Your task to perform on an android device: delete location history Image 0: 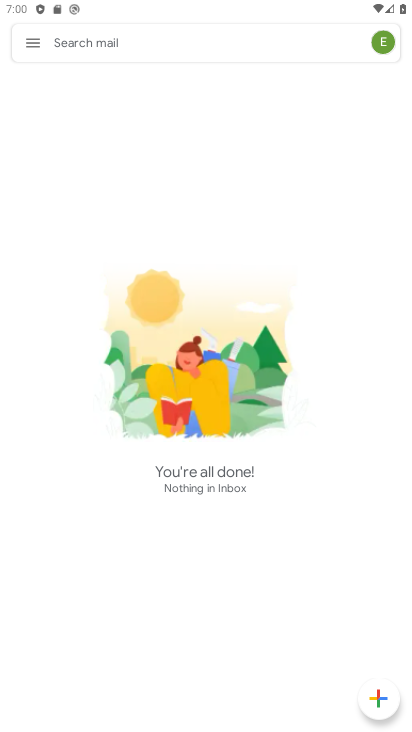
Step 0: press home button
Your task to perform on an android device: delete location history Image 1: 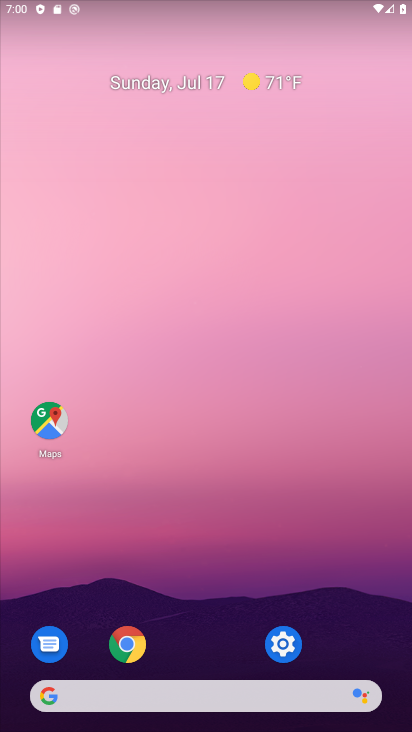
Step 1: drag from (246, 634) to (241, 175)
Your task to perform on an android device: delete location history Image 2: 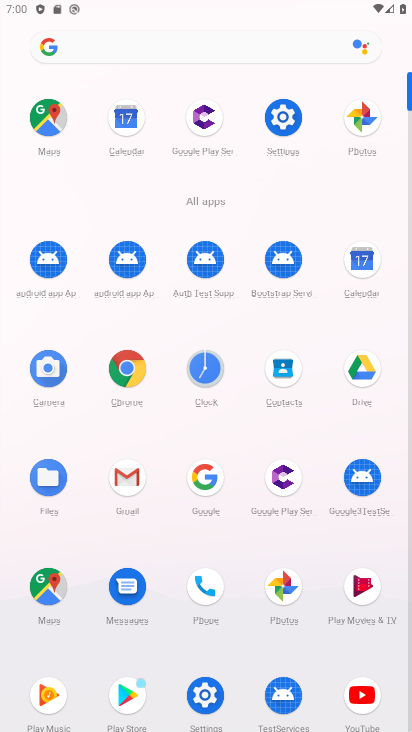
Step 2: click (204, 701)
Your task to perform on an android device: delete location history Image 3: 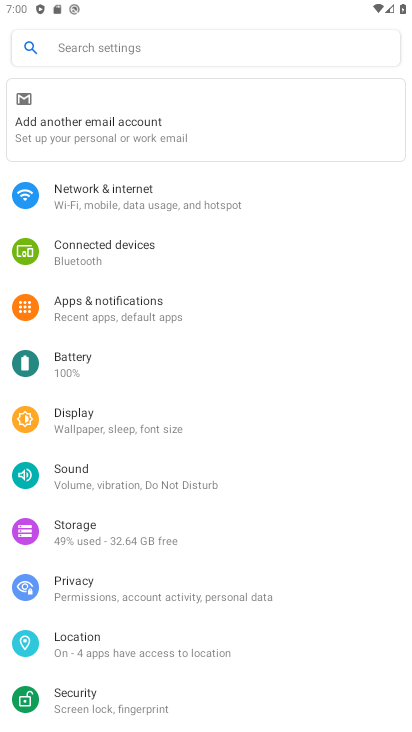
Step 3: click (83, 643)
Your task to perform on an android device: delete location history Image 4: 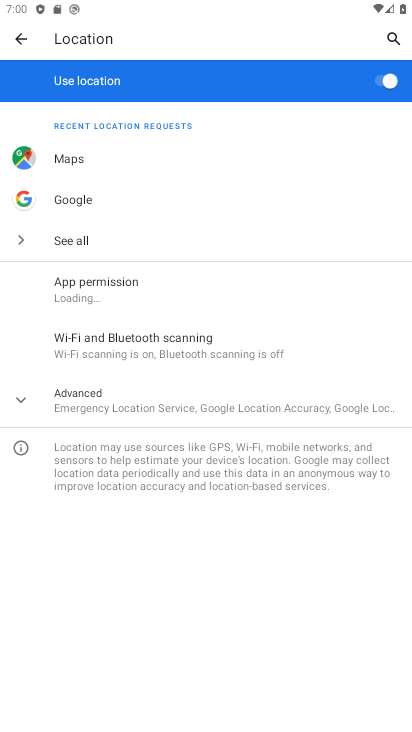
Step 4: click (22, 400)
Your task to perform on an android device: delete location history Image 5: 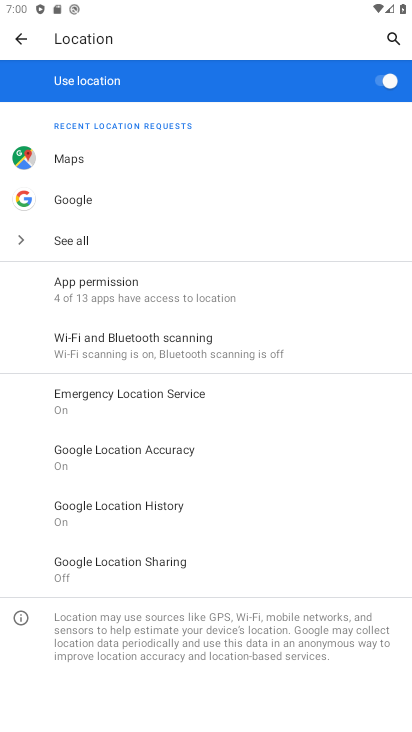
Step 5: click (146, 511)
Your task to perform on an android device: delete location history Image 6: 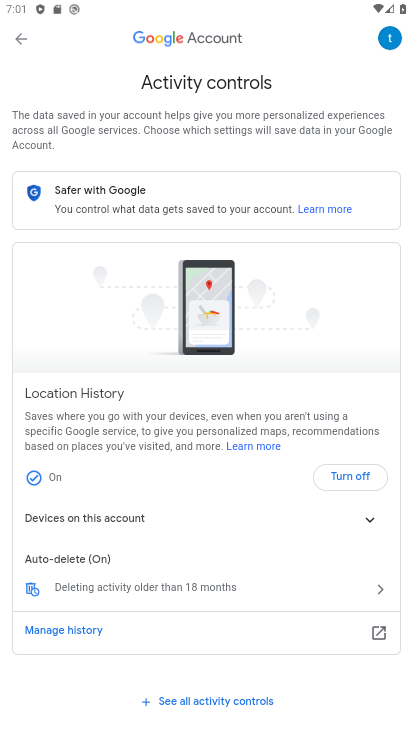
Step 6: drag from (148, 528) to (170, 362)
Your task to perform on an android device: delete location history Image 7: 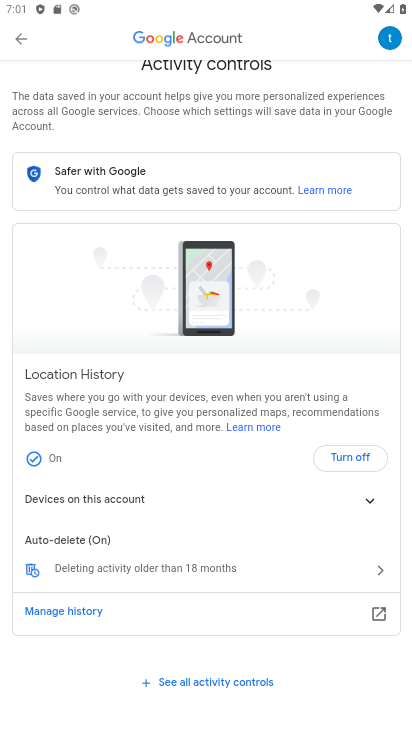
Step 7: drag from (220, 529) to (266, 237)
Your task to perform on an android device: delete location history Image 8: 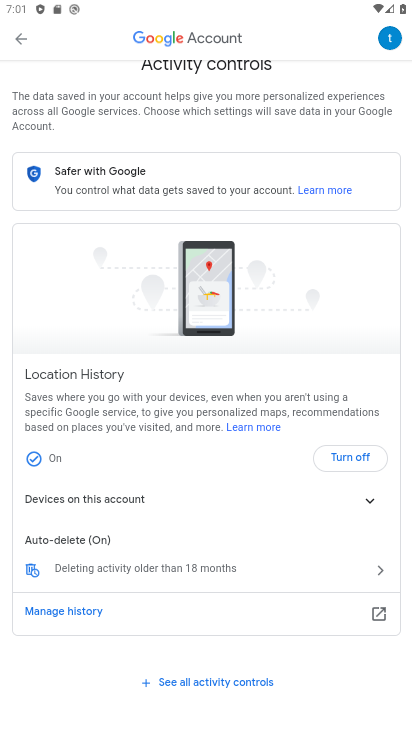
Step 8: drag from (204, 634) to (259, 405)
Your task to perform on an android device: delete location history Image 9: 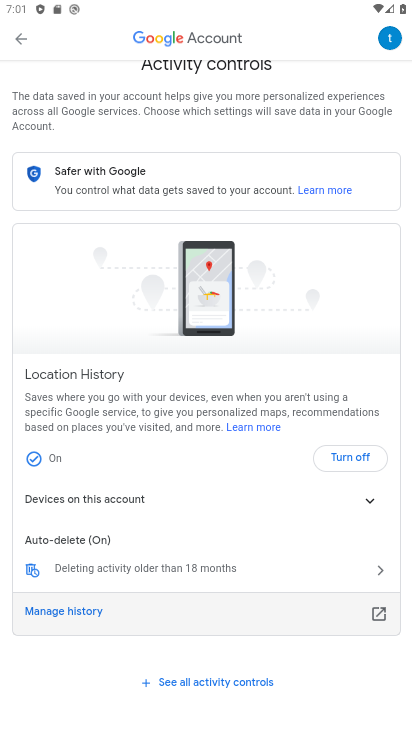
Step 9: click (129, 569)
Your task to perform on an android device: delete location history Image 10: 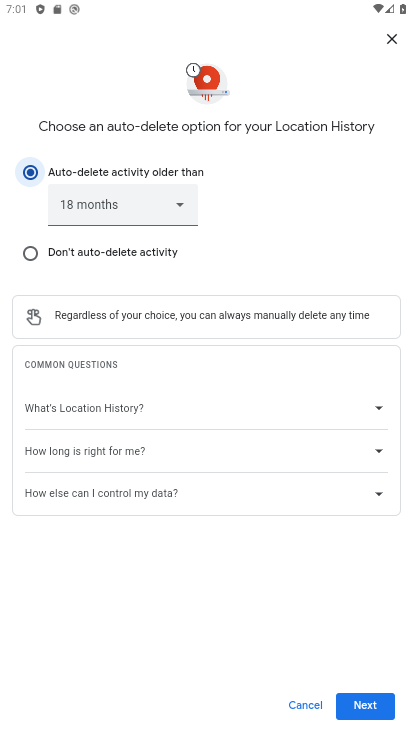
Step 10: click (360, 705)
Your task to perform on an android device: delete location history Image 11: 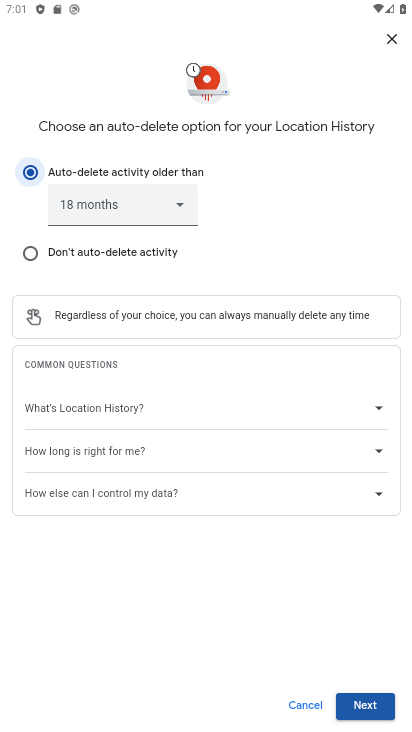
Step 11: task complete